Your task to perform on an android device: What is the news today? Image 0: 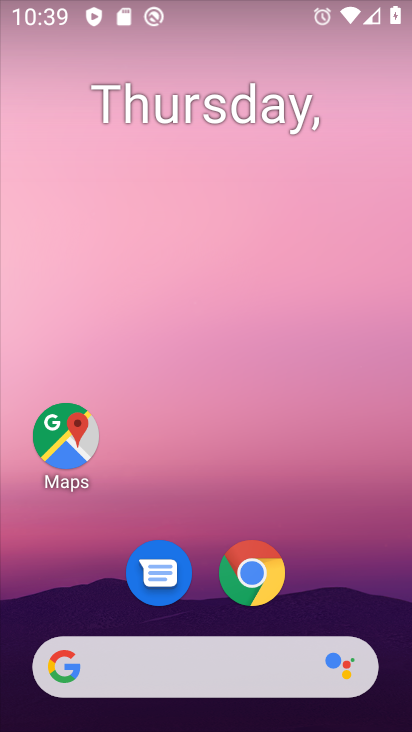
Step 0: drag from (331, 486) to (262, 7)
Your task to perform on an android device: What is the news today? Image 1: 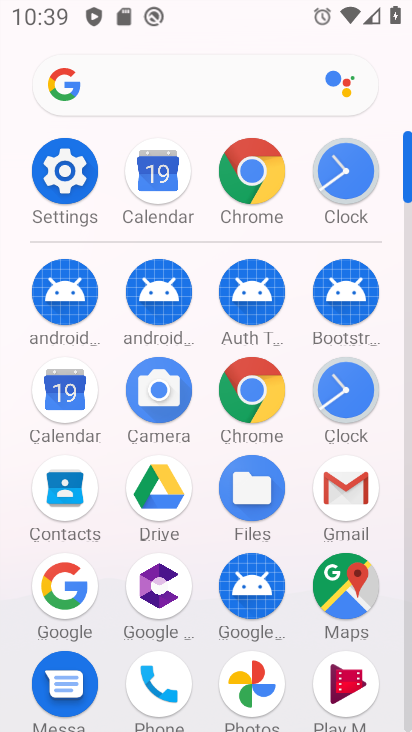
Step 1: click (248, 164)
Your task to perform on an android device: What is the news today? Image 2: 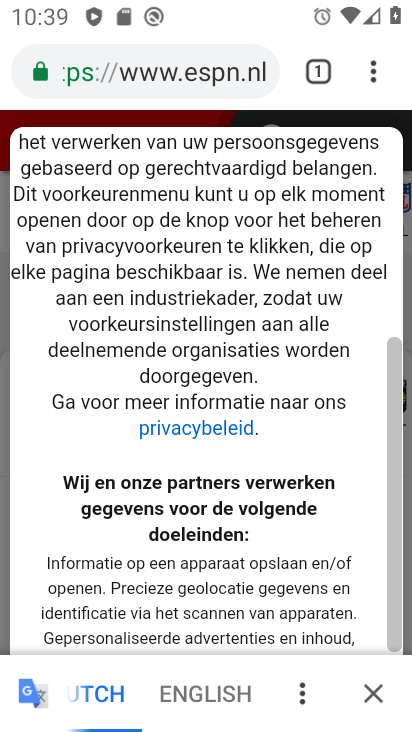
Step 2: click (189, 72)
Your task to perform on an android device: What is the news today? Image 3: 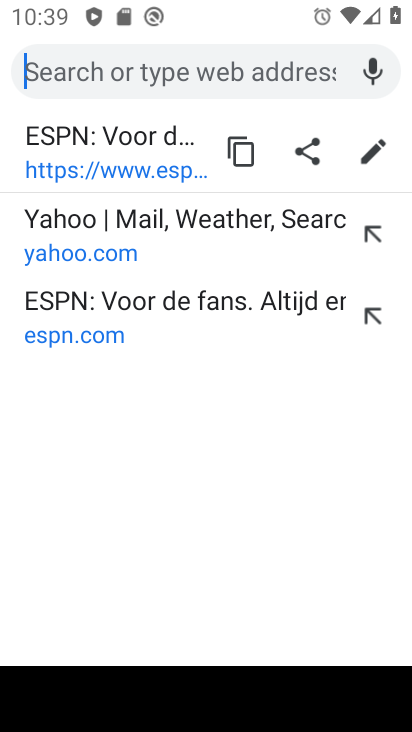
Step 3: type "news"
Your task to perform on an android device: What is the news today? Image 4: 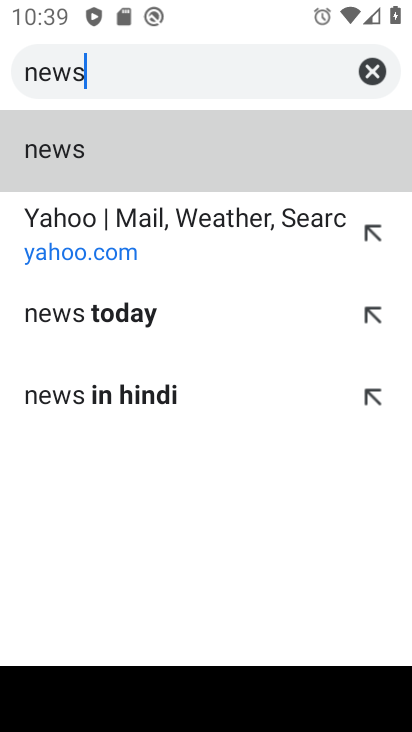
Step 4: click (96, 145)
Your task to perform on an android device: What is the news today? Image 5: 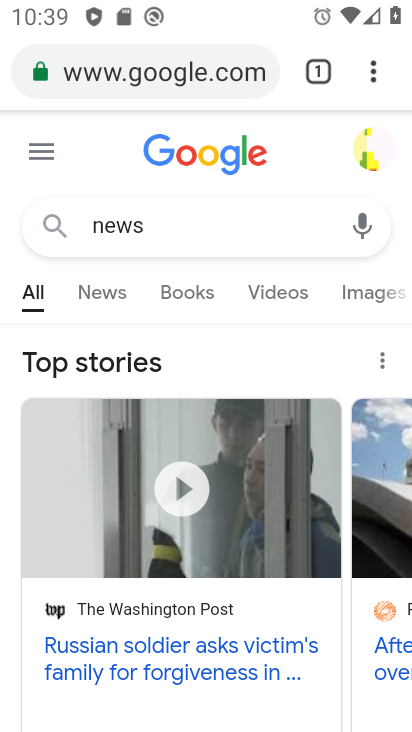
Step 5: click (98, 288)
Your task to perform on an android device: What is the news today? Image 6: 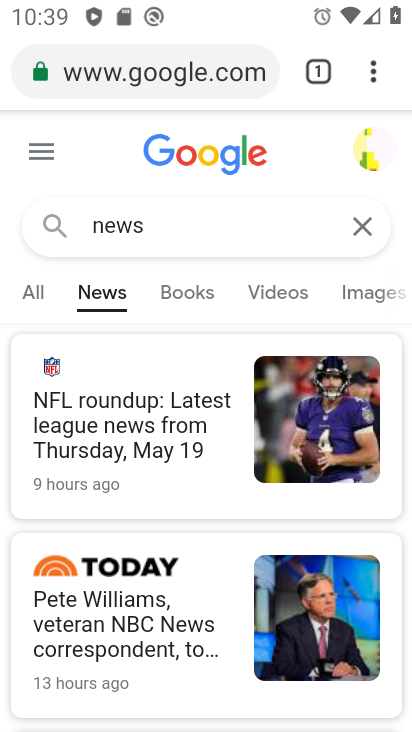
Step 6: task complete